Your task to perform on an android device: Set the phone to "Do not disturb". Image 0: 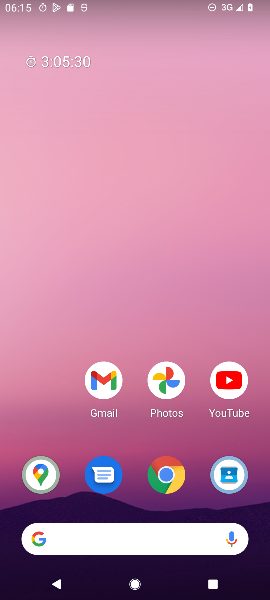
Step 0: press home button
Your task to perform on an android device: Set the phone to "Do not disturb". Image 1: 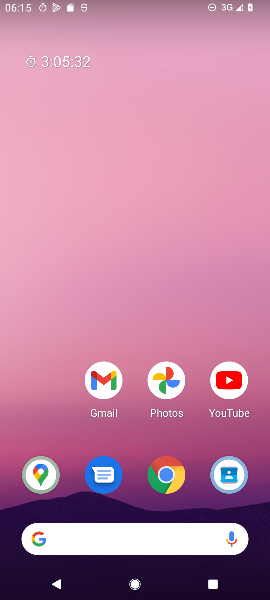
Step 1: drag from (62, 432) to (96, 128)
Your task to perform on an android device: Set the phone to "Do not disturb". Image 2: 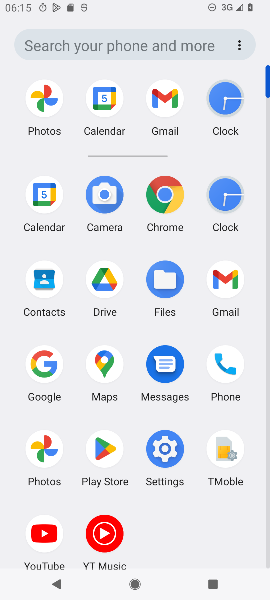
Step 2: click (165, 447)
Your task to perform on an android device: Set the phone to "Do not disturb". Image 3: 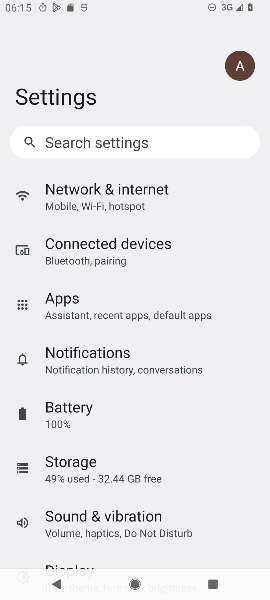
Step 3: drag from (229, 436) to (236, 341)
Your task to perform on an android device: Set the phone to "Do not disturb". Image 4: 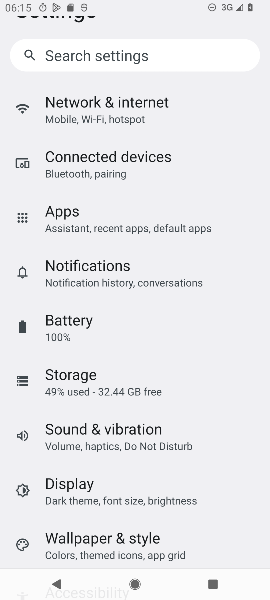
Step 4: drag from (220, 485) to (219, 343)
Your task to perform on an android device: Set the phone to "Do not disturb". Image 5: 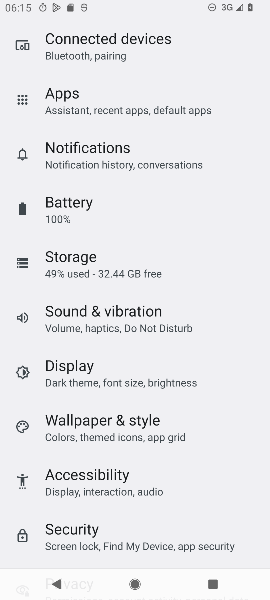
Step 5: drag from (205, 485) to (211, 336)
Your task to perform on an android device: Set the phone to "Do not disturb". Image 6: 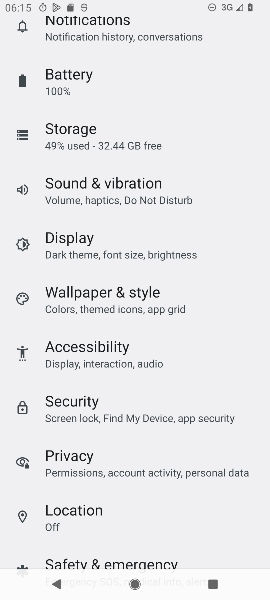
Step 6: drag from (214, 494) to (217, 329)
Your task to perform on an android device: Set the phone to "Do not disturb". Image 7: 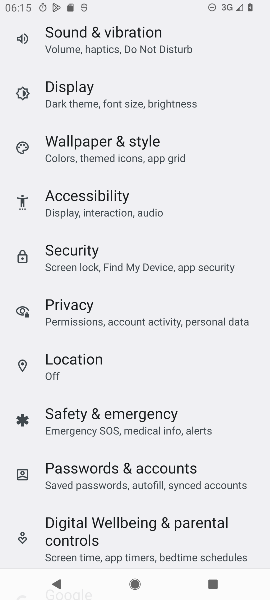
Step 7: drag from (215, 454) to (221, 326)
Your task to perform on an android device: Set the phone to "Do not disturb". Image 8: 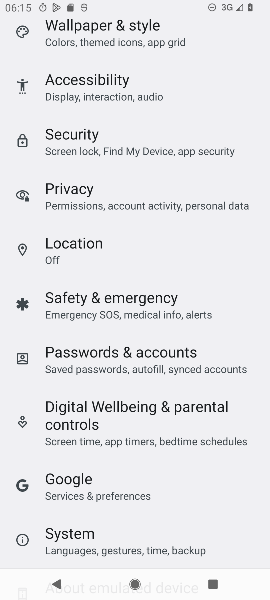
Step 8: drag from (232, 225) to (239, 324)
Your task to perform on an android device: Set the phone to "Do not disturb". Image 9: 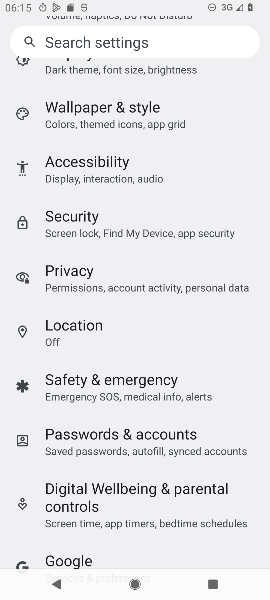
Step 9: drag from (237, 153) to (234, 292)
Your task to perform on an android device: Set the phone to "Do not disturb". Image 10: 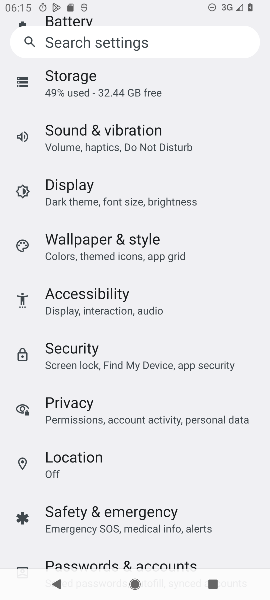
Step 10: drag from (228, 131) to (228, 268)
Your task to perform on an android device: Set the phone to "Do not disturb". Image 11: 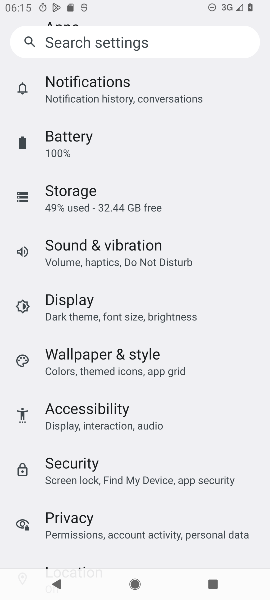
Step 11: click (149, 243)
Your task to perform on an android device: Set the phone to "Do not disturb". Image 12: 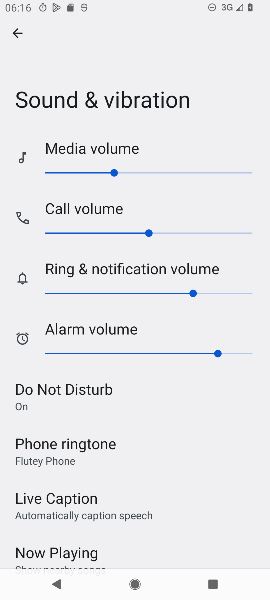
Step 12: task complete